Your task to perform on an android device: Open ESPN.com Image 0: 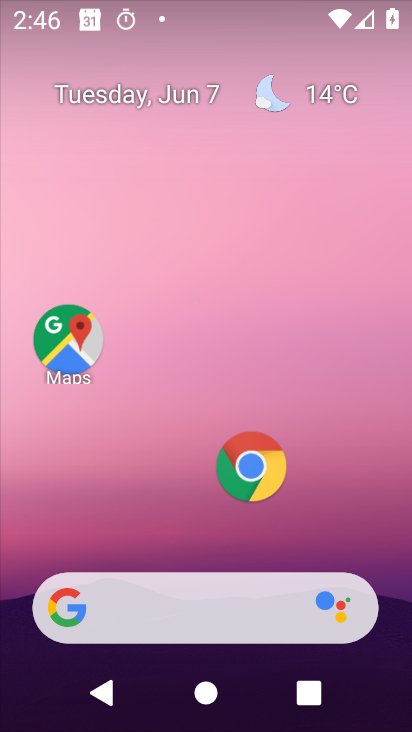
Step 0: click (257, 469)
Your task to perform on an android device: Open ESPN.com Image 1: 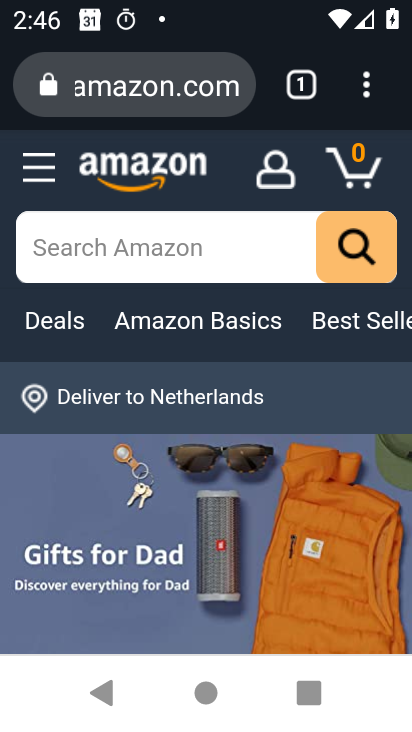
Step 1: click (298, 98)
Your task to perform on an android device: Open ESPN.com Image 2: 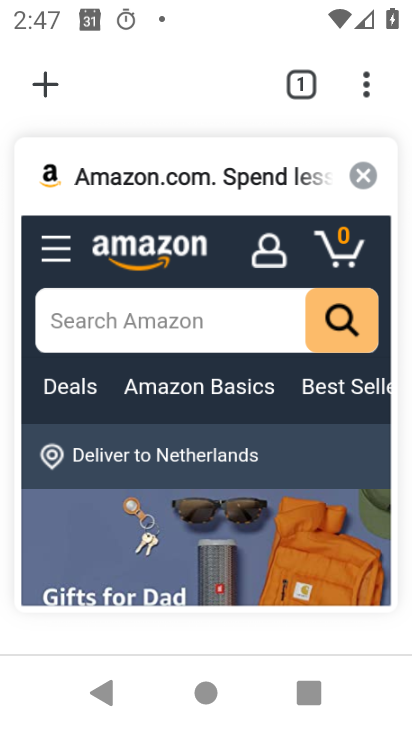
Step 2: click (366, 172)
Your task to perform on an android device: Open ESPN.com Image 3: 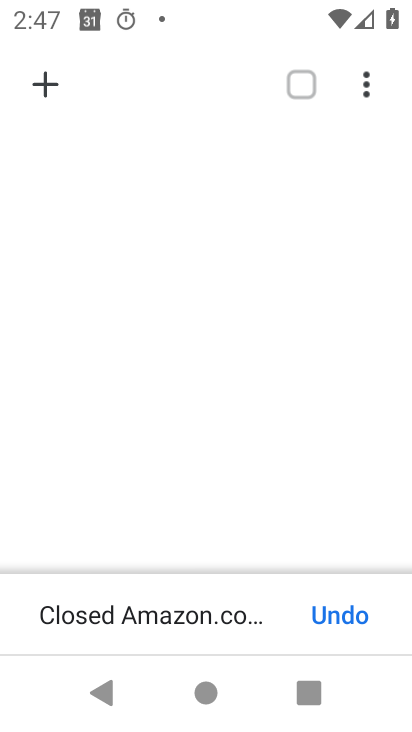
Step 3: click (37, 86)
Your task to perform on an android device: Open ESPN.com Image 4: 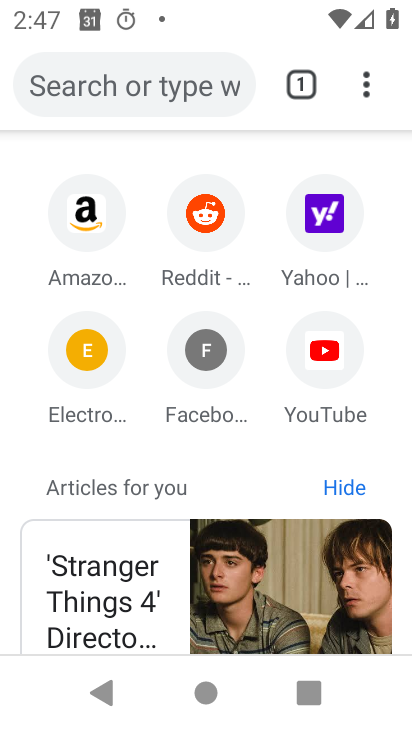
Step 4: click (133, 92)
Your task to perform on an android device: Open ESPN.com Image 5: 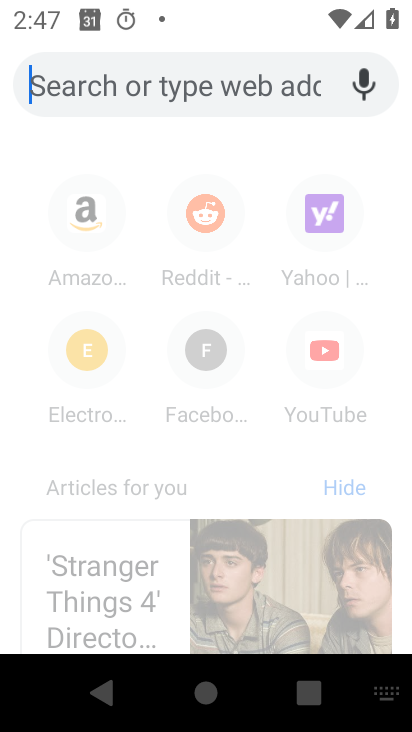
Step 5: type "espn.com"
Your task to perform on an android device: Open ESPN.com Image 6: 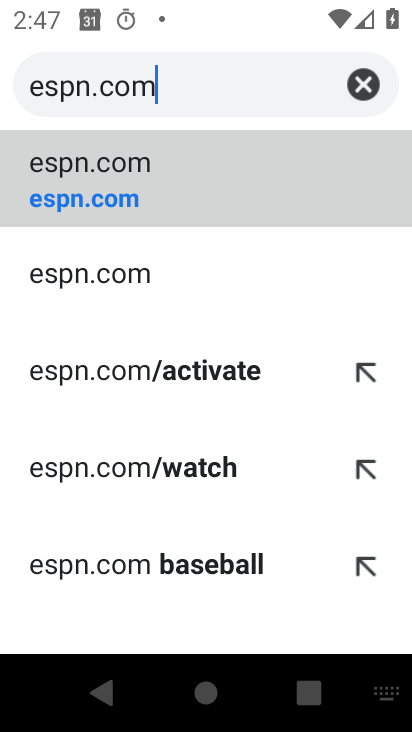
Step 6: click (136, 175)
Your task to perform on an android device: Open ESPN.com Image 7: 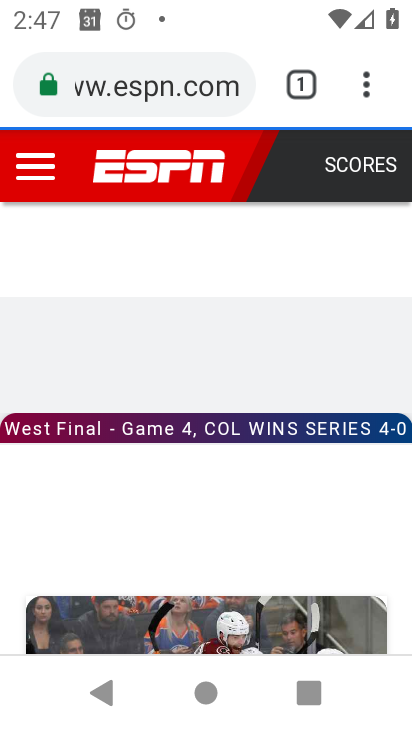
Step 7: task complete